Your task to perform on an android device: clear history in the chrome app Image 0: 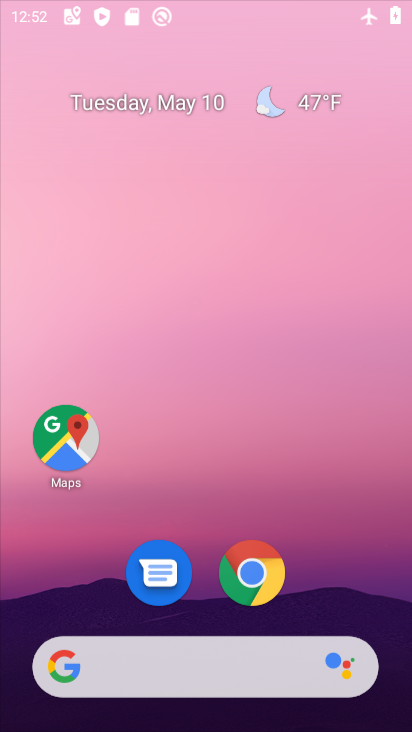
Step 0: drag from (210, 419) to (203, 193)
Your task to perform on an android device: clear history in the chrome app Image 1: 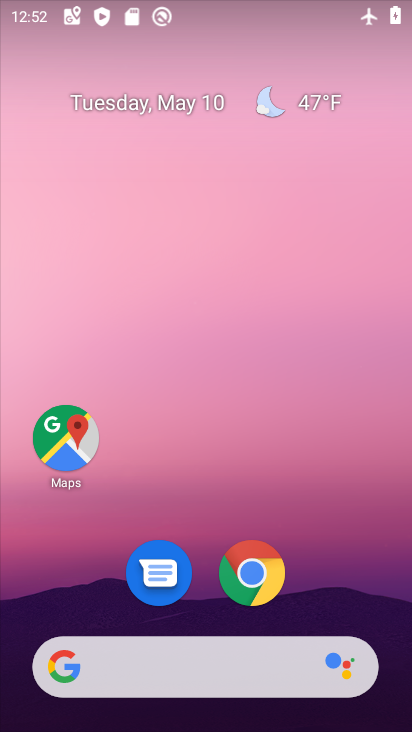
Step 1: drag from (199, 623) to (216, 204)
Your task to perform on an android device: clear history in the chrome app Image 2: 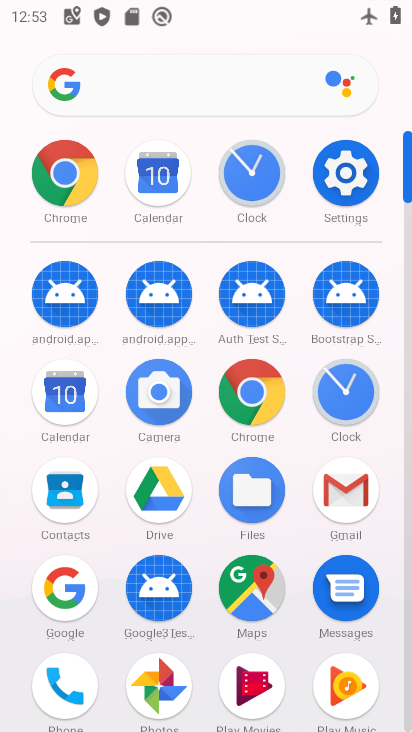
Step 2: click (261, 388)
Your task to perform on an android device: clear history in the chrome app Image 3: 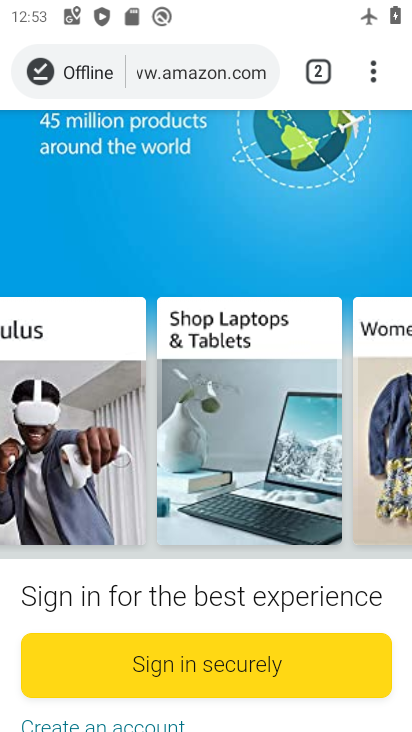
Step 3: drag from (370, 80) to (161, 398)
Your task to perform on an android device: clear history in the chrome app Image 4: 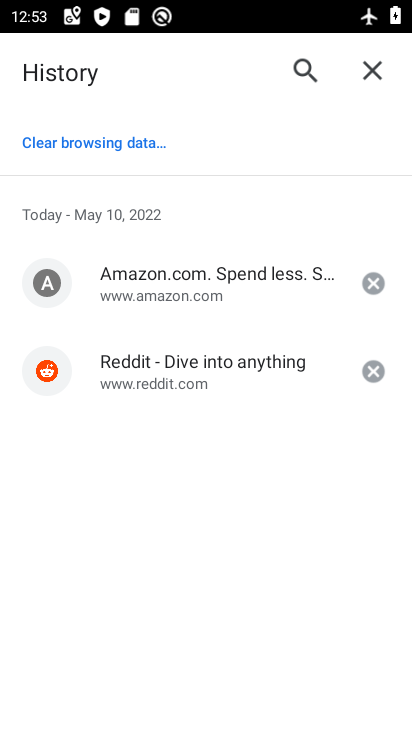
Step 4: drag from (246, 634) to (241, 284)
Your task to perform on an android device: clear history in the chrome app Image 5: 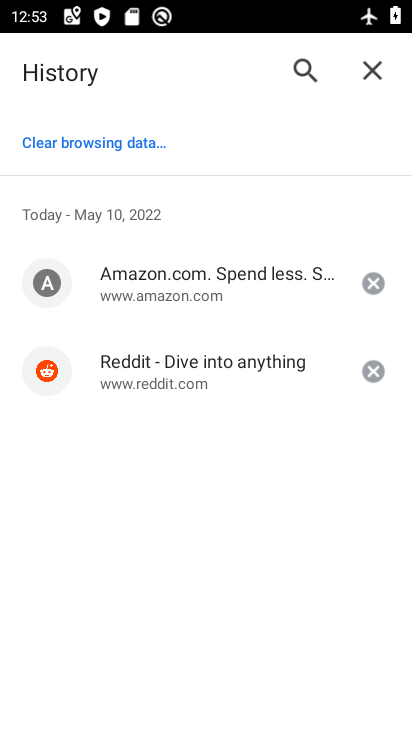
Step 5: click (111, 143)
Your task to perform on an android device: clear history in the chrome app Image 6: 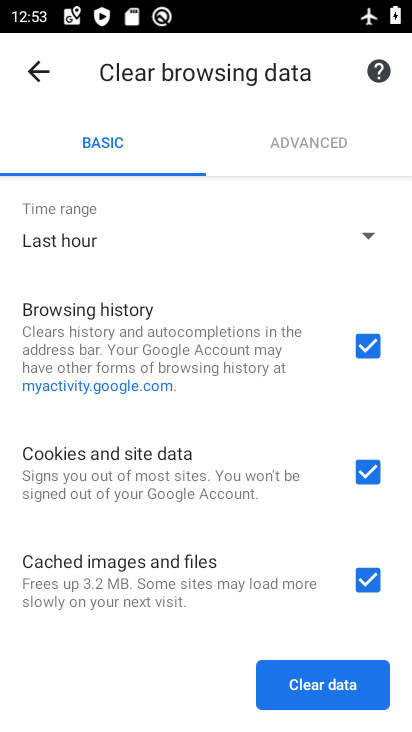
Step 6: click (293, 697)
Your task to perform on an android device: clear history in the chrome app Image 7: 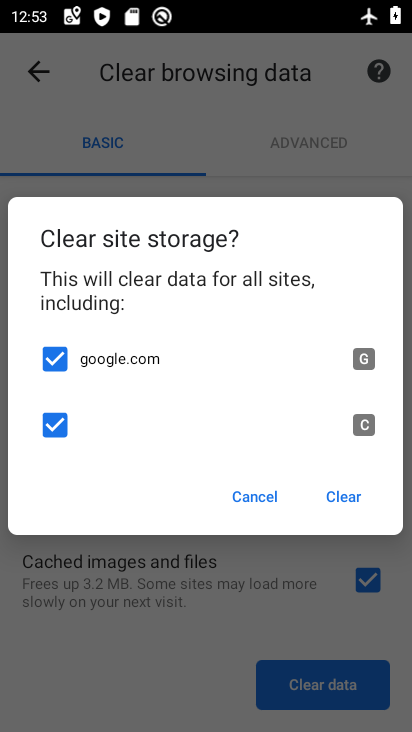
Step 7: click (334, 481)
Your task to perform on an android device: clear history in the chrome app Image 8: 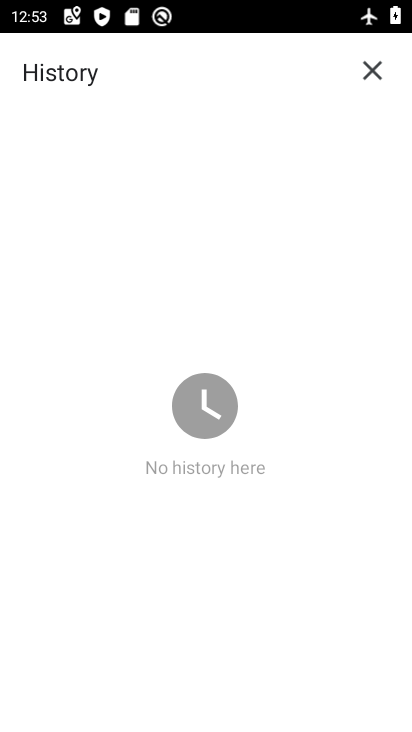
Step 8: task complete